Your task to perform on an android device: turn off airplane mode Image 0: 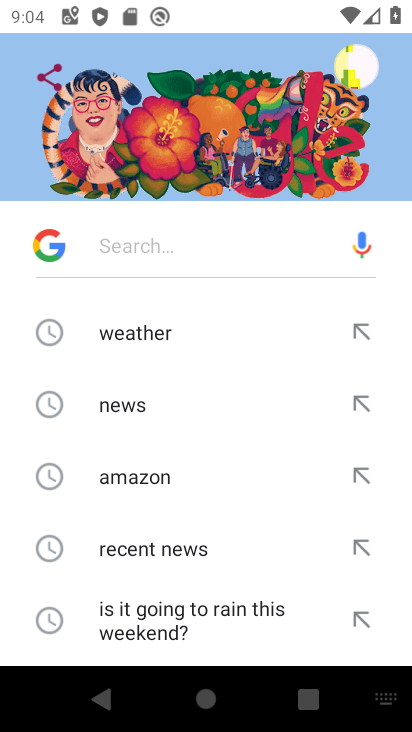
Step 0: press home button
Your task to perform on an android device: turn off airplane mode Image 1: 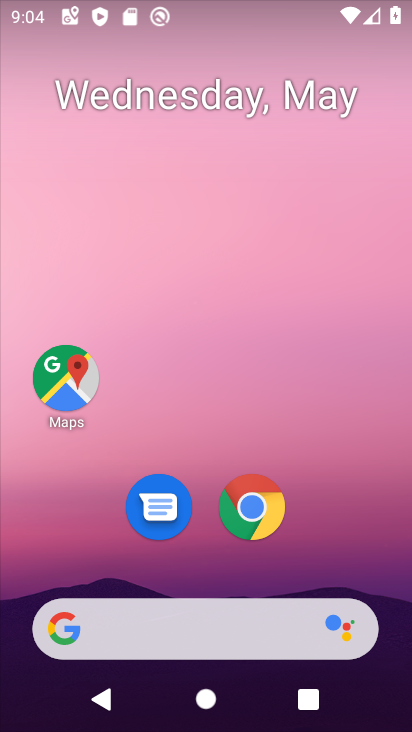
Step 1: drag from (376, 583) to (325, 135)
Your task to perform on an android device: turn off airplane mode Image 2: 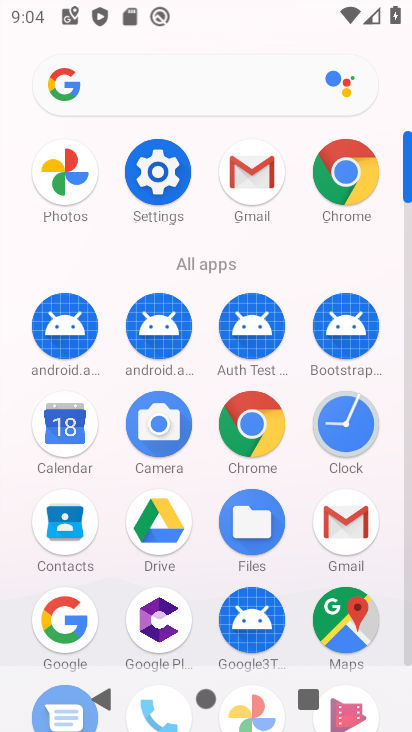
Step 2: click (367, 135)
Your task to perform on an android device: turn off airplane mode Image 3: 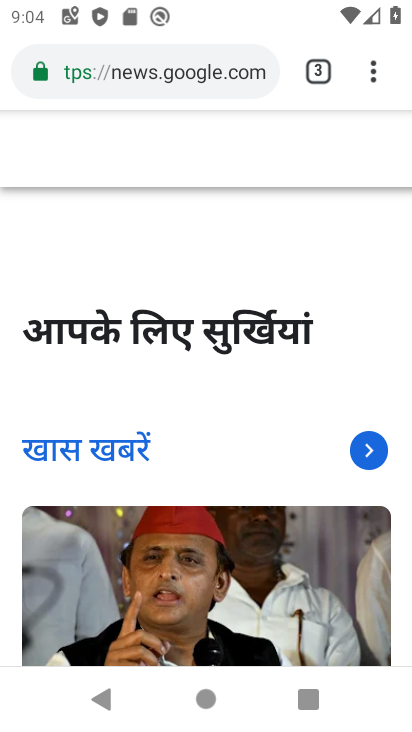
Step 3: press home button
Your task to perform on an android device: turn off airplane mode Image 4: 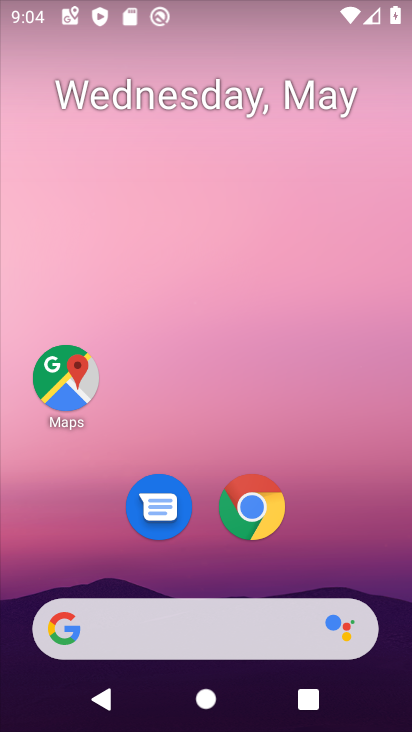
Step 4: drag from (396, 581) to (301, 158)
Your task to perform on an android device: turn off airplane mode Image 5: 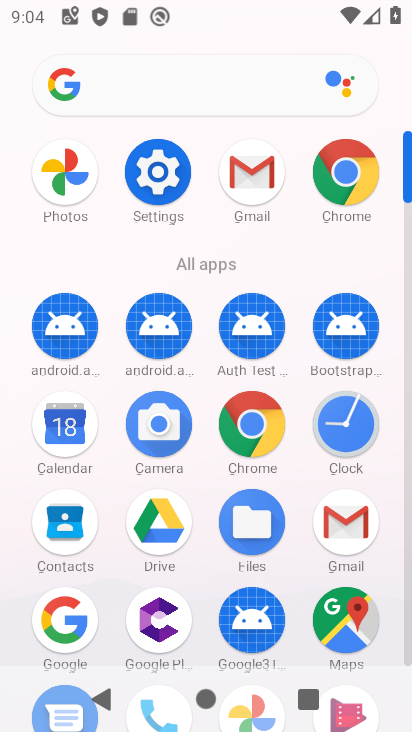
Step 5: click (151, 189)
Your task to perform on an android device: turn off airplane mode Image 6: 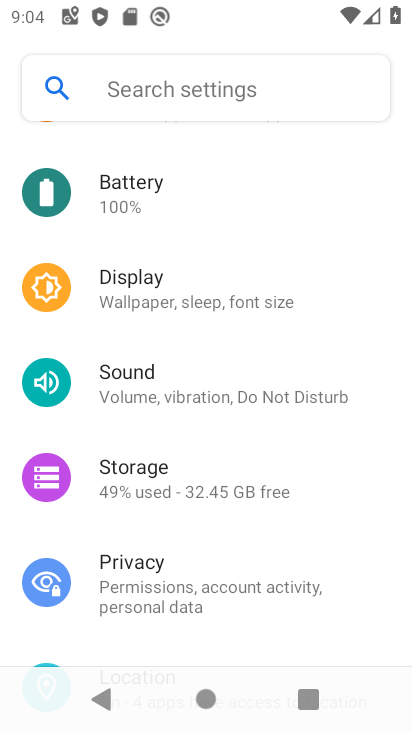
Step 6: drag from (151, 189) to (157, 727)
Your task to perform on an android device: turn off airplane mode Image 7: 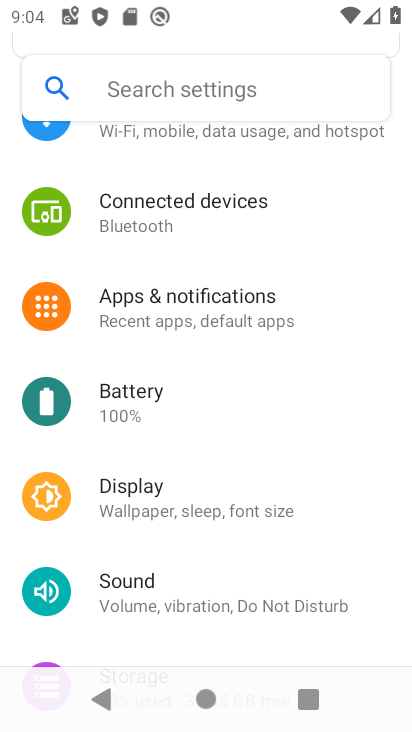
Step 7: click (292, 149)
Your task to perform on an android device: turn off airplane mode Image 8: 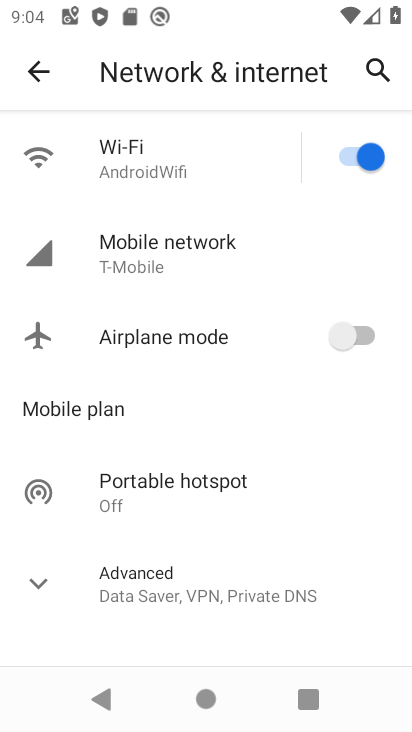
Step 8: task complete